Your task to perform on an android device: toggle pop-ups in chrome Image 0: 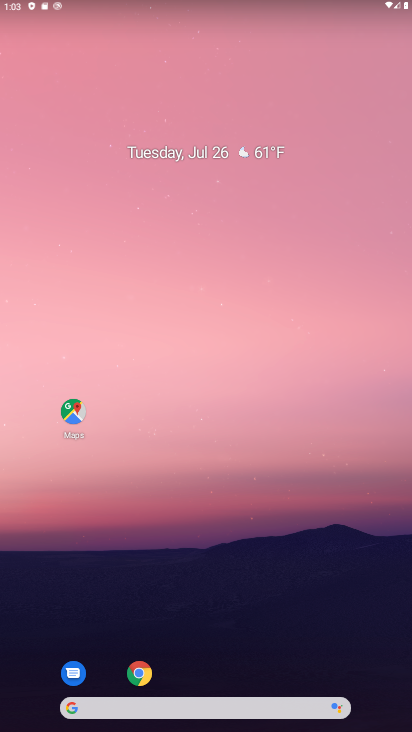
Step 0: drag from (187, 624) to (184, 175)
Your task to perform on an android device: toggle pop-ups in chrome Image 1: 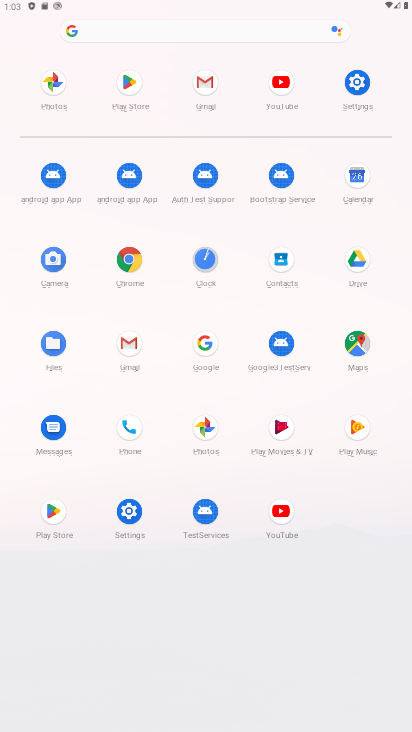
Step 1: click (122, 254)
Your task to perform on an android device: toggle pop-ups in chrome Image 2: 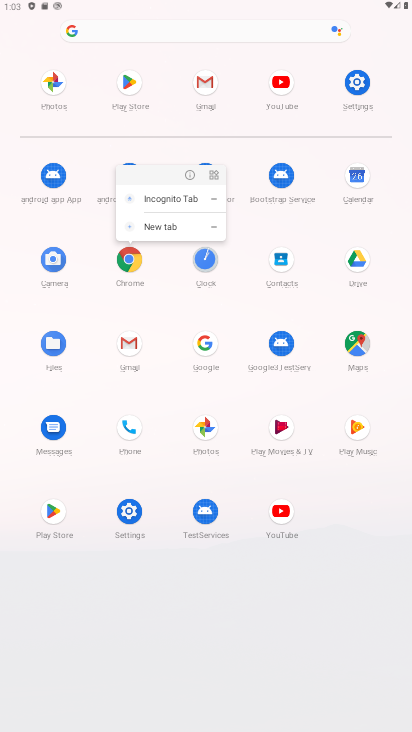
Step 2: click (188, 175)
Your task to perform on an android device: toggle pop-ups in chrome Image 3: 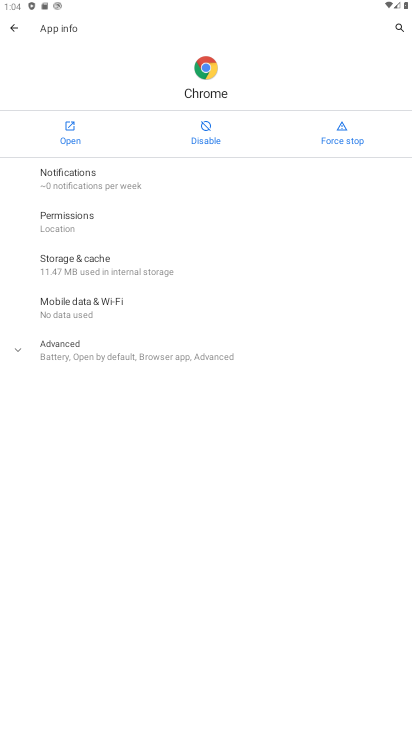
Step 3: click (70, 140)
Your task to perform on an android device: toggle pop-ups in chrome Image 4: 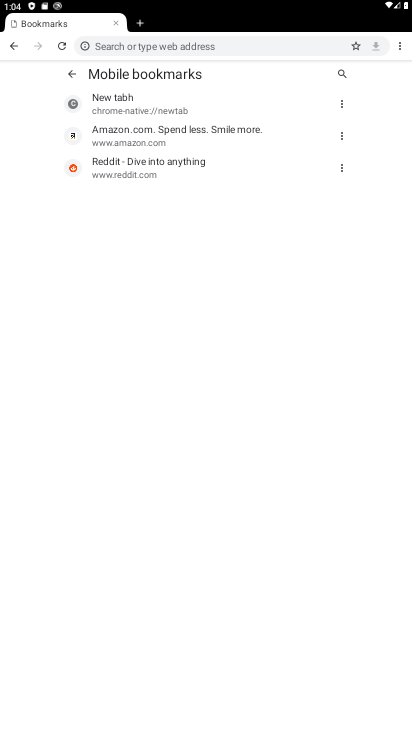
Step 4: drag from (402, 50) to (311, 207)
Your task to perform on an android device: toggle pop-ups in chrome Image 5: 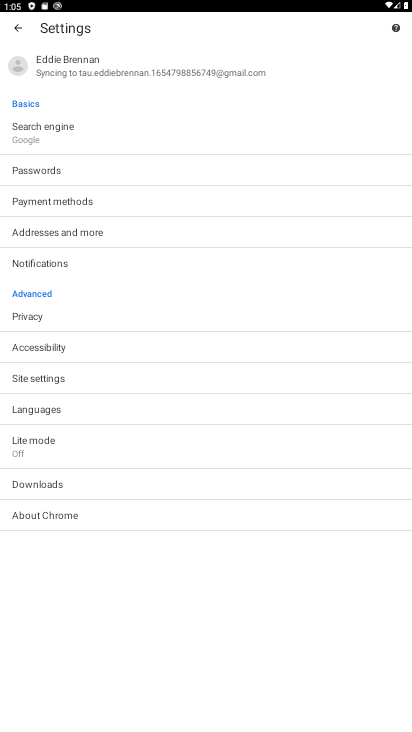
Step 5: click (70, 376)
Your task to perform on an android device: toggle pop-ups in chrome Image 6: 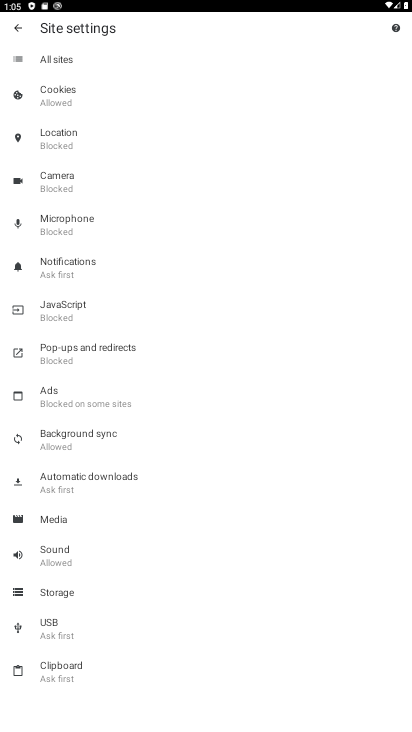
Step 6: click (93, 354)
Your task to perform on an android device: toggle pop-ups in chrome Image 7: 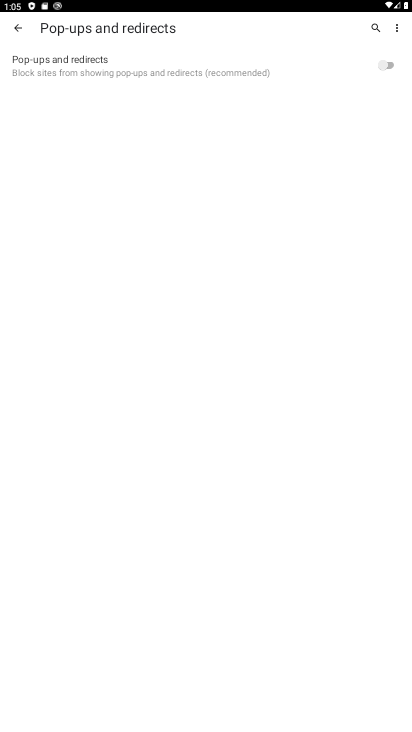
Step 7: click (239, 61)
Your task to perform on an android device: toggle pop-ups in chrome Image 8: 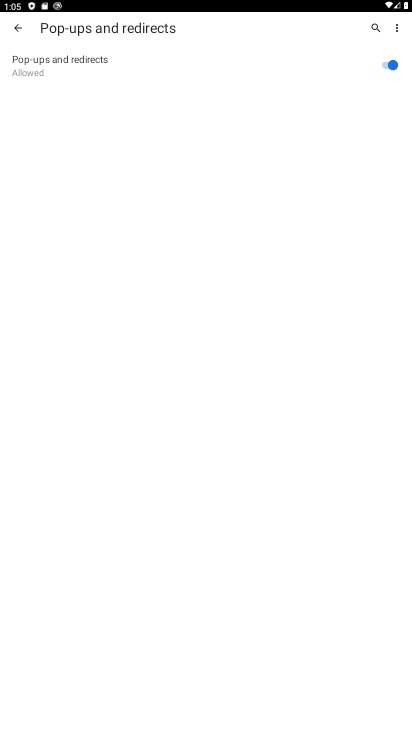
Step 8: task complete